Your task to perform on an android device: turn on the 12-hour format for clock Image 0: 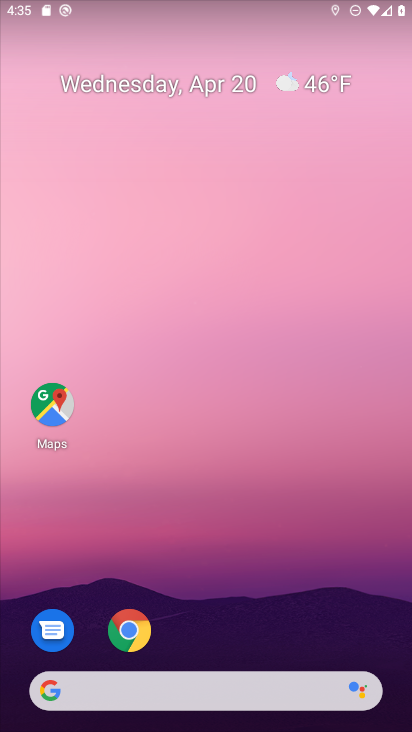
Step 0: drag from (250, 649) to (332, 62)
Your task to perform on an android device: turn on the 12-hour format for clock Image 1: 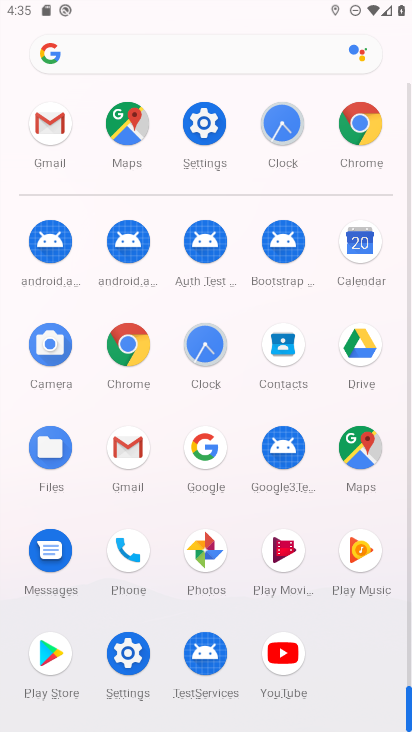
Step 1: click (200, 354)
Your task to perform on an android device: turn on the 12-hour format for clock Image 2: 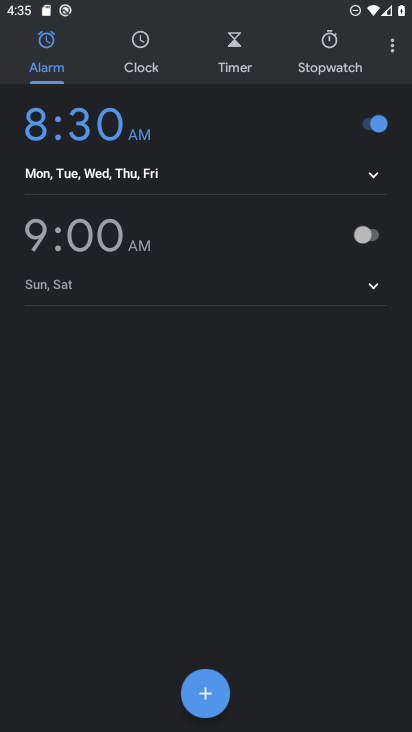
Step 2: click (385, 43)
Your task to perform on an android device: turn on the 12-hour format for clock Image 3: 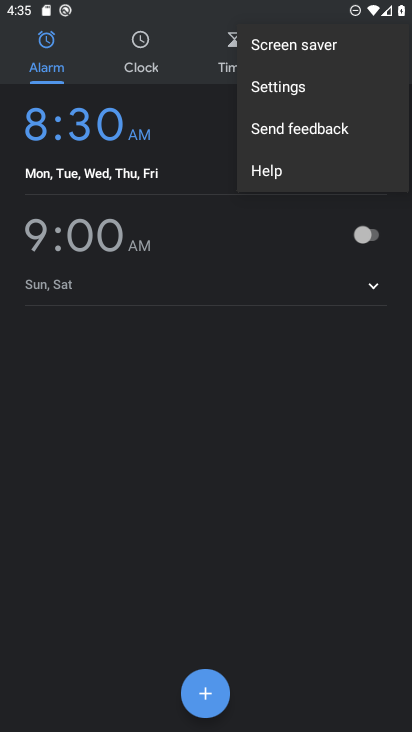
Step 3: click (308, 83)
Your task to perform on an android device: turn on the 12-hour format for clock Image 4: 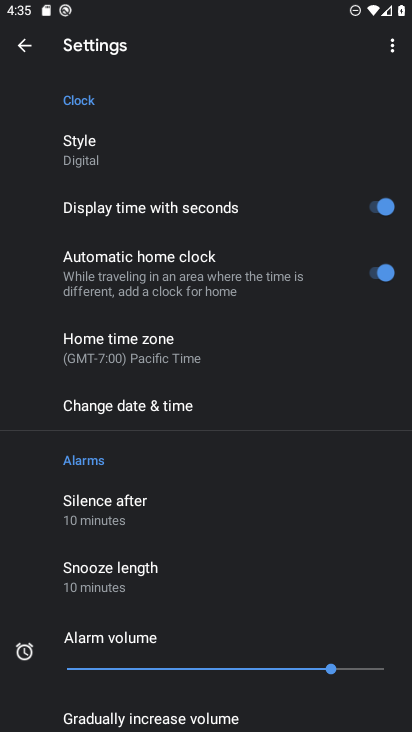
Step 4: click (182, 415)
Your task to perform on an android device: turn on the 12-hour format for clock Image 5: 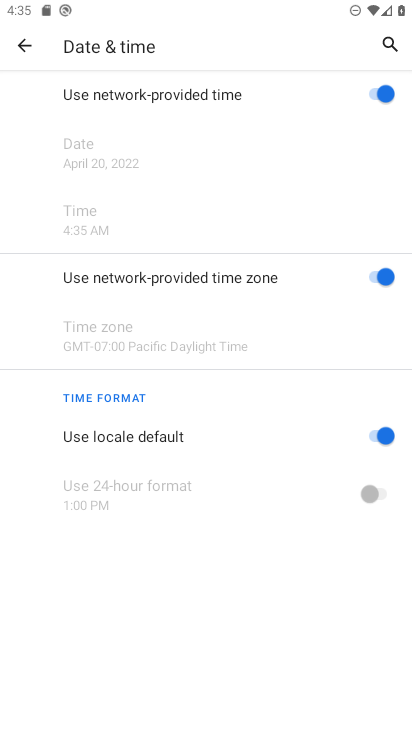
Step 5: click (375, 433)
Your task to perform on an android device: turn on the 12-hour format for clock Image 6: 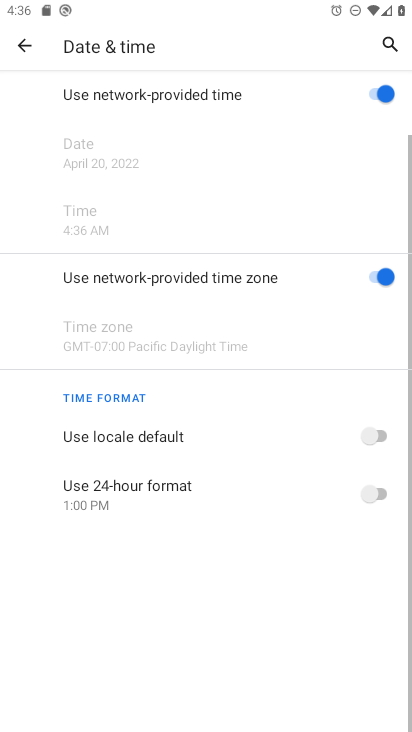
Step 6: task complete